Your task to perform on an android device: turn notification dots off Image 0: 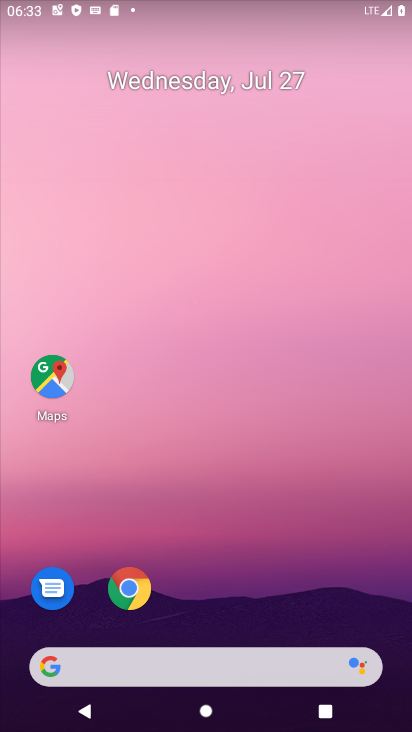
Step 0: drag from (286, 663) to (269, 17)
Your task to perform on an android device: turn notification dots off Image 1: 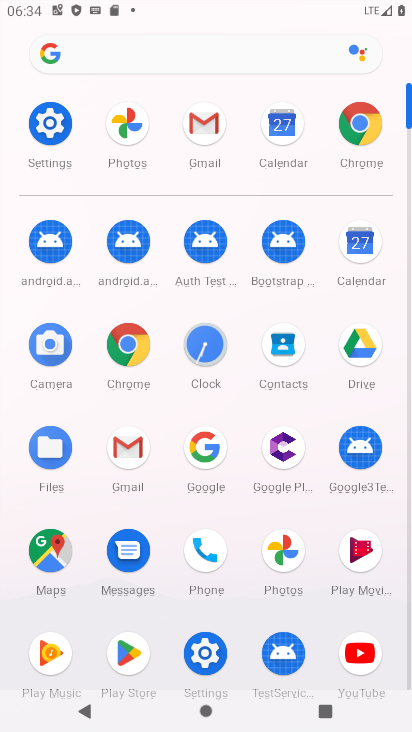
Step 1: click (35, 124)
Your task to perform on an android device: turn notification dots off Image 2: 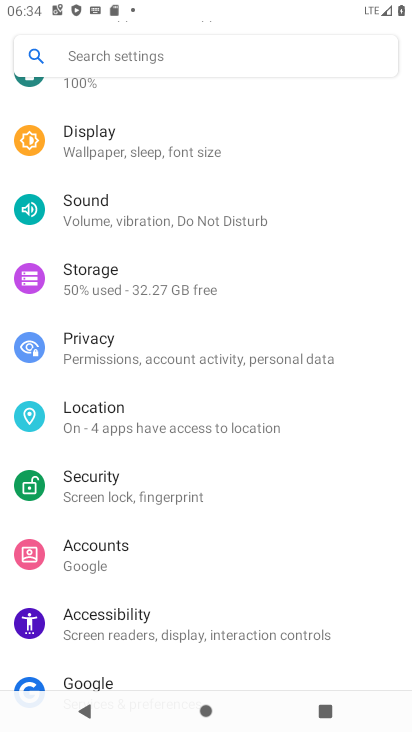
Step 2: drag from (220, 234) to (193, 471)
Your task to perform on an android device: turn notification dots off Image 3: 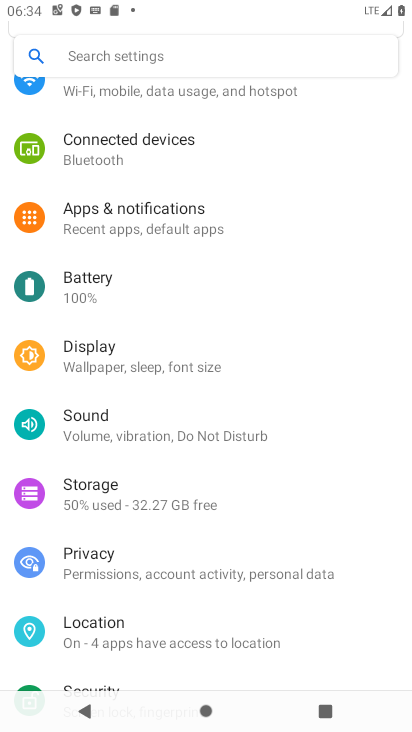
Step 3: click (217, 219)
Your task to perform on an android device: turn notification dots off Image 4: 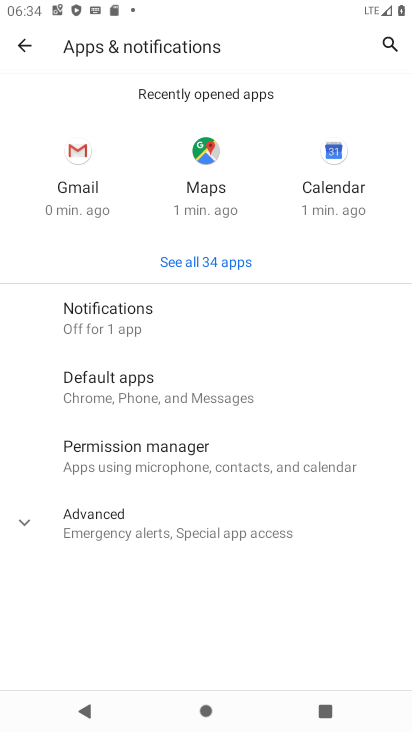
Step 4: click (132, 319)
Your task to perform on an android device: turn notification dots off Image 5: 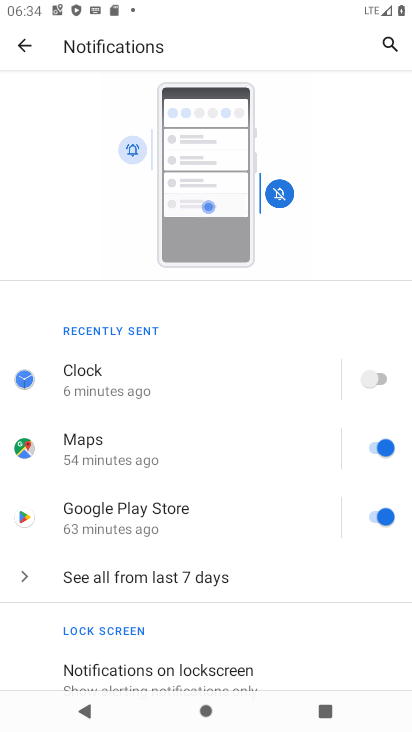
Step 5: drag from (169, 597) to (241, 124)
Your task to perform on an android device: turn notification dots off Image 6: 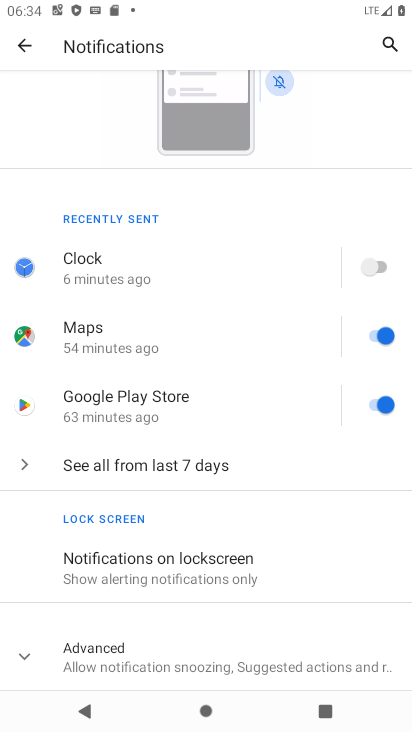
Step 6: click (250, 676)
Your task to perform on an android device: turn notification dots off Image 7: 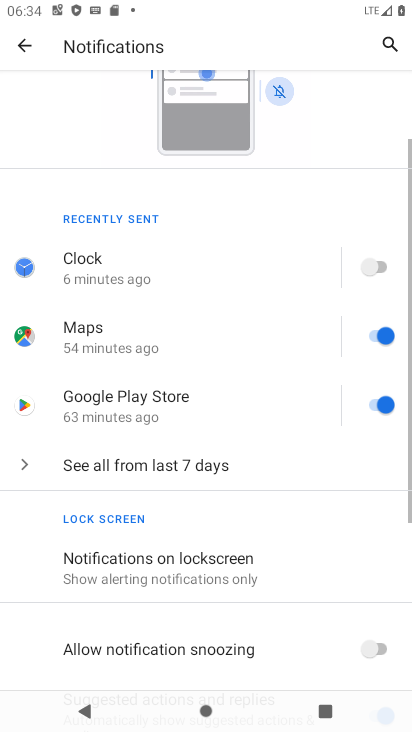
Step 7: task complete